Your task to perform on an android device: toggle improve location accuracy Image 0: 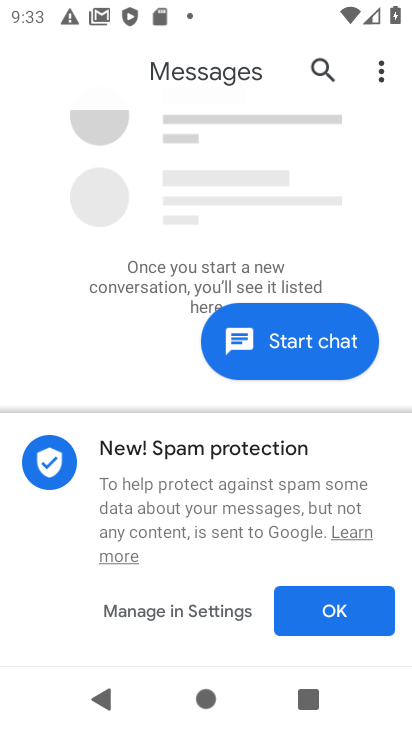
Step 0: press home button
Your task to perform on an android device: toggle improve location accuracy Image 1: 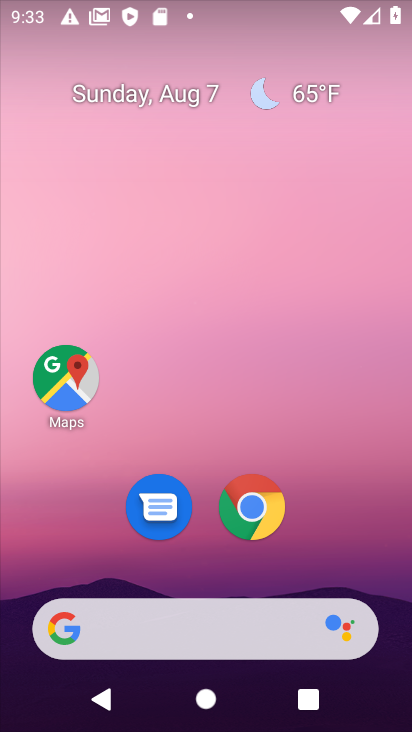
Step 1: drag from (345, 540) to (355, 49)
Your task to perform on an android device: toggle improve location accuracy Image 2: 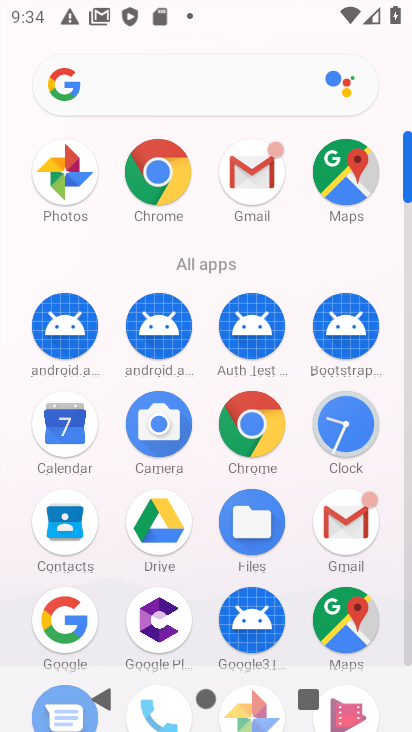
Step 2: drag from (201, 584) to (269, 182)
Your task to perform on an android device: toggle improve location accuracy Image 3: 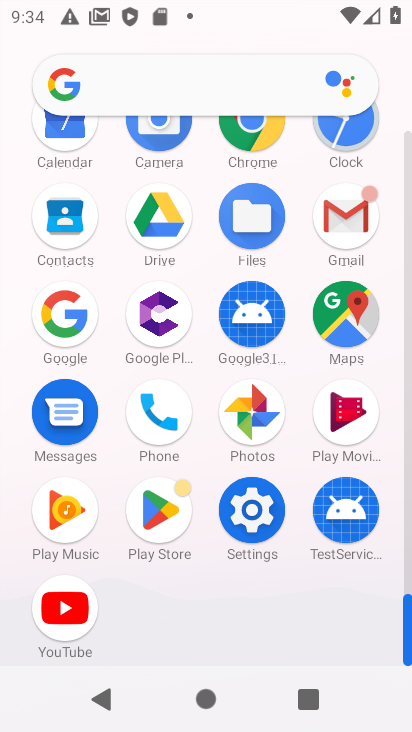
Step 3: click (242, 507)
Your task to perform on an android device: toggle improve location accuracy Image 4: 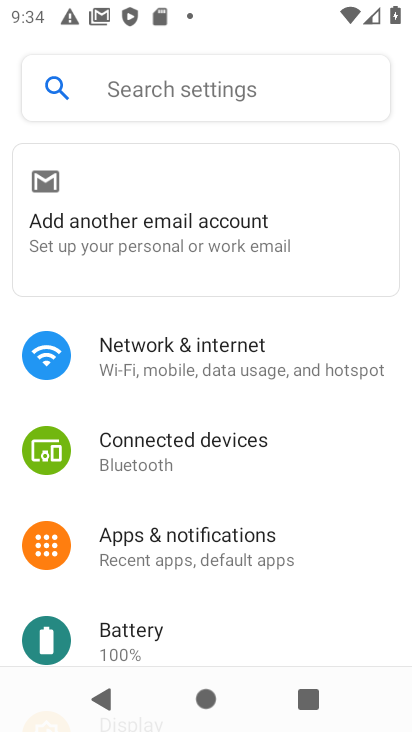
Step 4: drag from (213, 608) to (300, 352)
Your task to perform on an android device: toggle improve location accuracy Image 5: 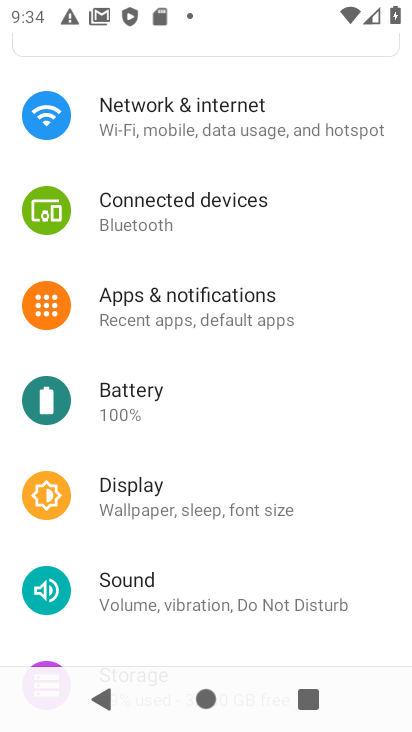
Step 5: drag from (171, 576) to (283, 360)
Your task to perform on an android device: toggle improve location accuracy Image 6: 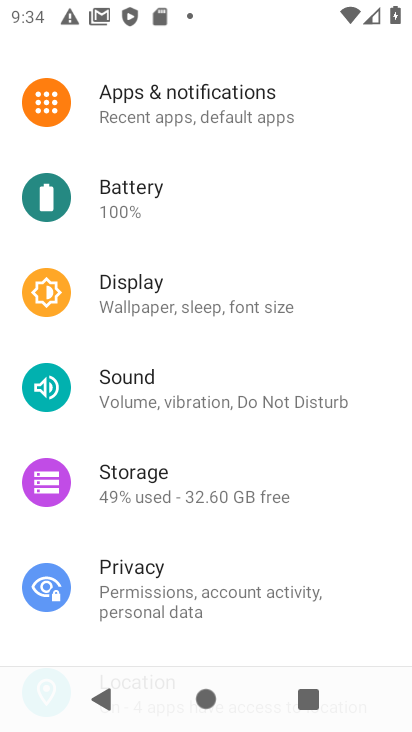
Step 6: drag from (181, 579) to (276, 343)
Your task to perform on an android device: toggle improve location accuracy Image 7: 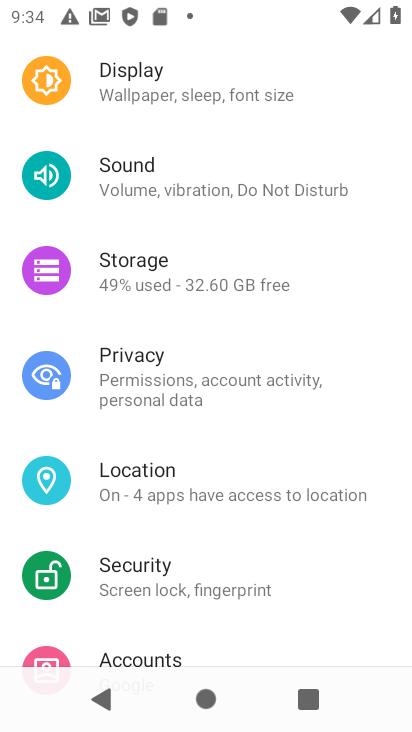
Step 7: click (152, 496)
Your task to perform on an android device: toggle improve location accuracy Image 8: 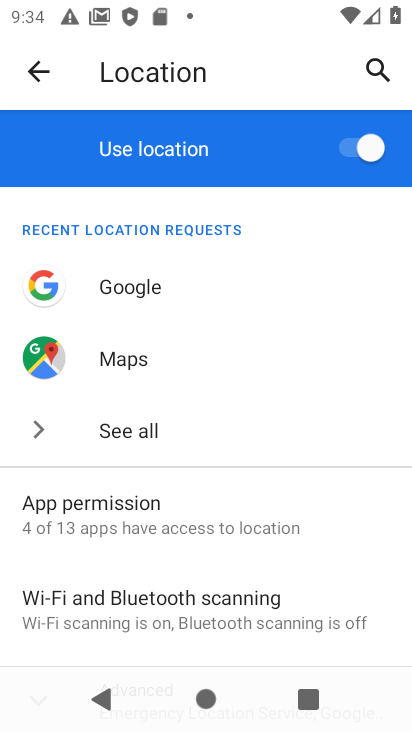
Step 8: drag from (197, 555) to (278, 282)
Your task to perform on an android device: toggle improve location accuracy Image 9: 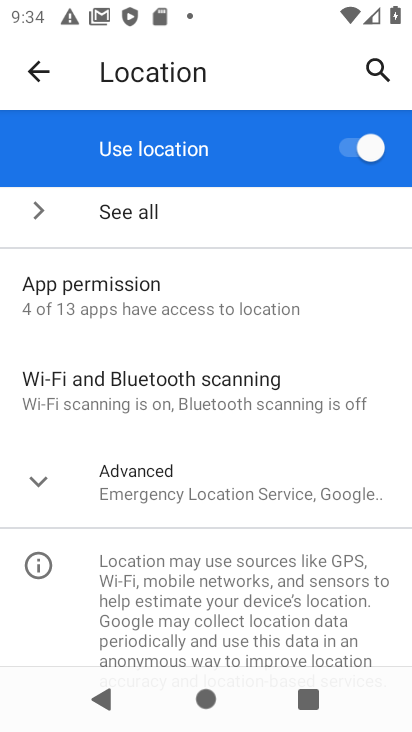
Step 9: click (232, 520)
Your task to perform on an android device: toggle improve location accuracy Image 10: 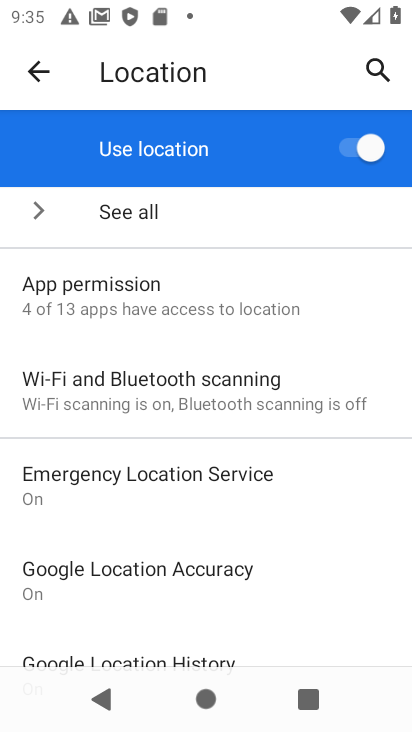
Step 10: click (230, 571)
Your task to perform on an android device: toggle improve location accuracy Image 11: 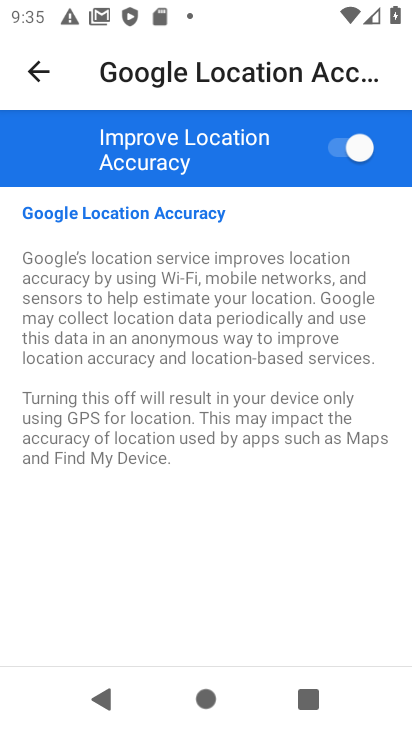
Step 11: click (343, 150)
Your task to perform on an android device: toggle improve location accuracy Image 12: 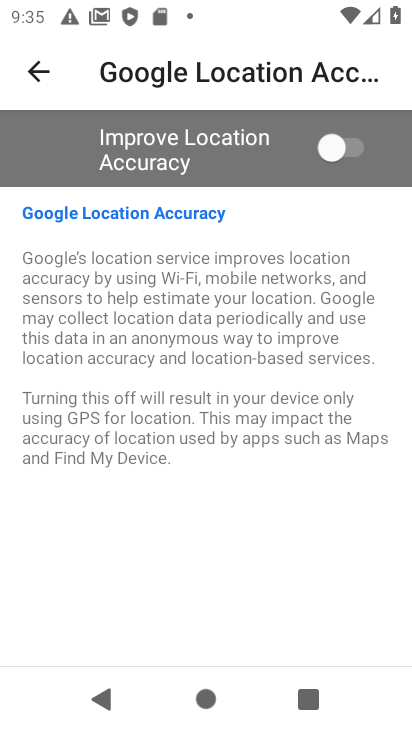
Step 12: task complete